Your task to perform on an android device: What is the news today? Image 0: 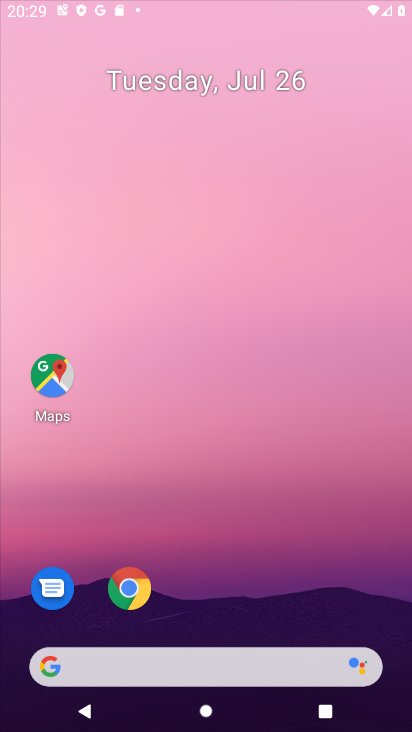
Step 0: press home button
Your task to perform on an android device: What is the news today? Image 1: 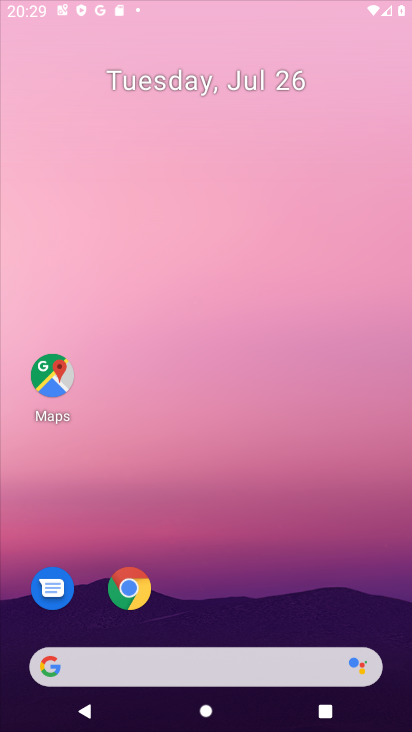
Step 1: click (140, 587)
Your task to perform on an android device: What is the news today? Image 2: 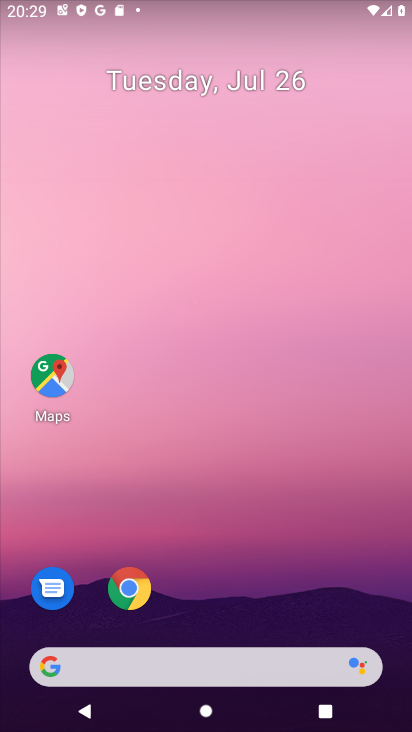
Step 2: press home button
Your task to perform on an android device: What is the news today? Image 3: 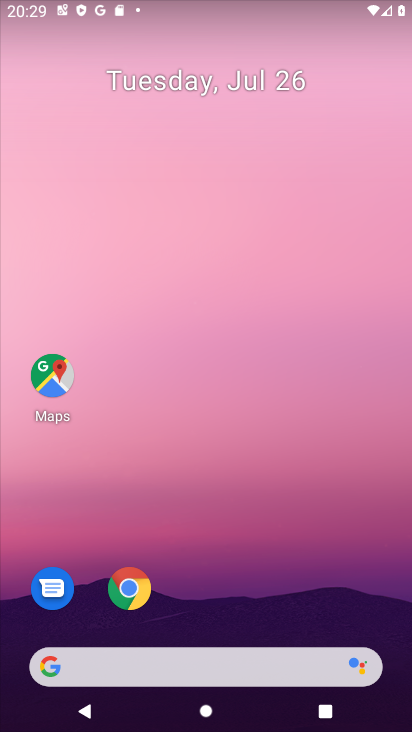
Step 3: press home button
Your task to perform on an android device: What is the news today? Image 4: 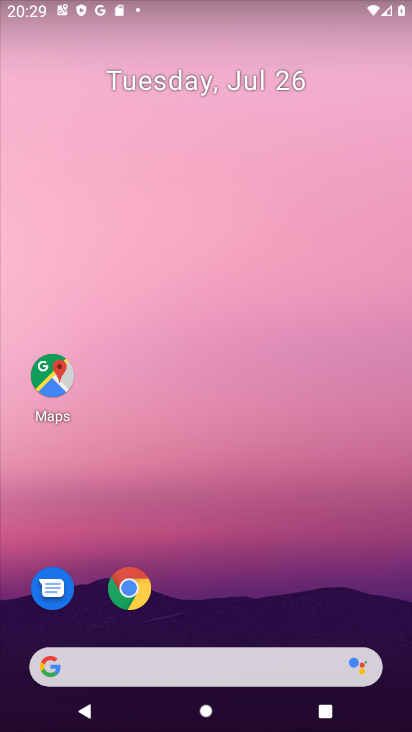
Step 4: press home button
Your task to perform on an android device: What is the news today? Image 5: 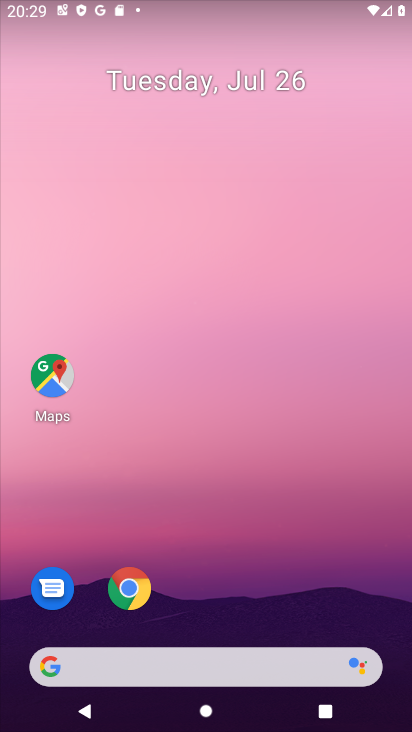
Step 5: press home button
Your task to perform on an android device: What is the news today? Image 6: 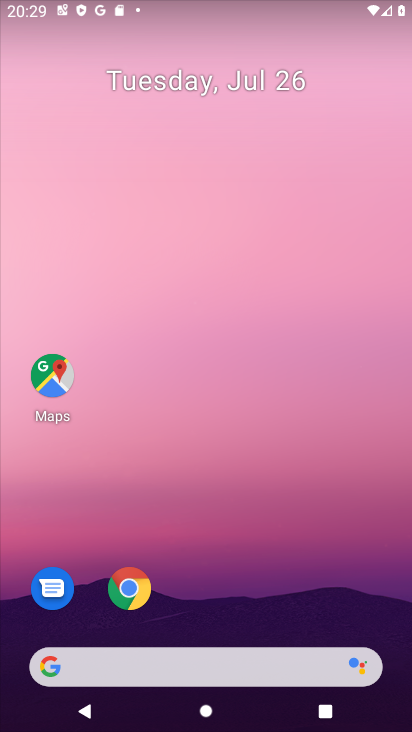
Step 6: press home button
Your task to perform on an android device: What is the news today? Image 7: 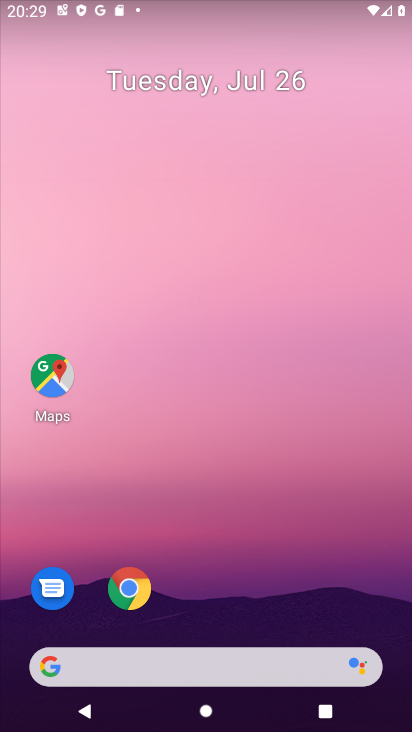
Step 7: click (49, 666)
Your task to perform on an android device: What is the news today? Image 8: 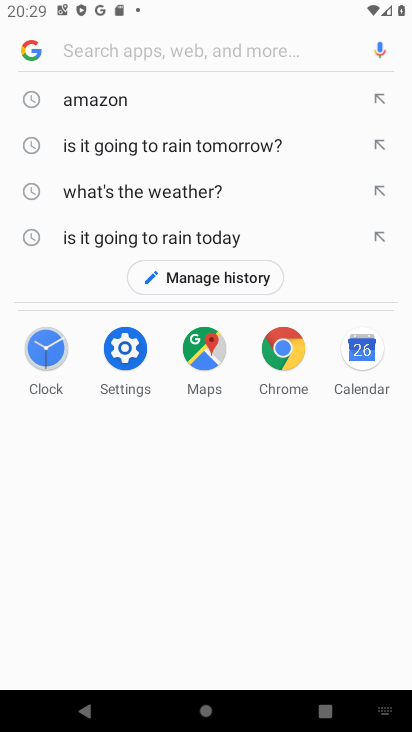
Step 8: type "What is the news today?"
Your task to perform on an android device: What is the news today? Image 9: 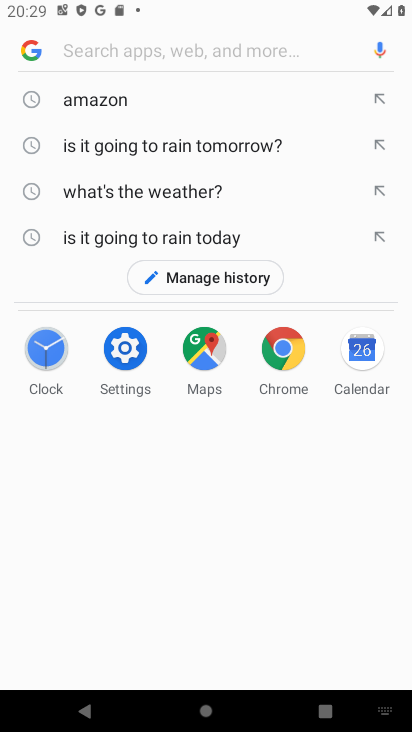
Step 9: click (119, 53)
Your task to perform on an android device: What is the news today? Image 10: 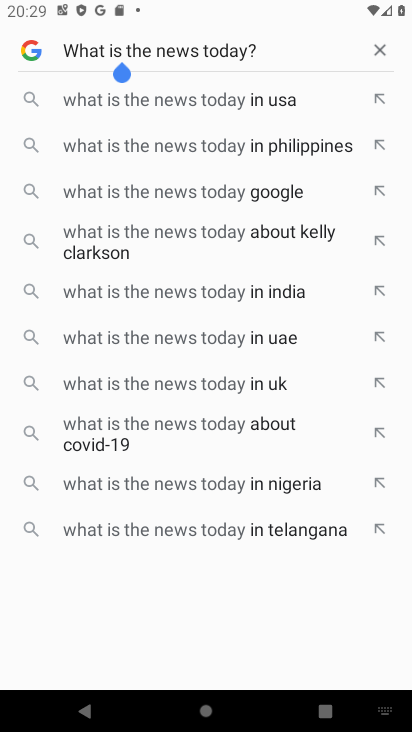
Step 10: press enter
Your task to perform on an android device: What is the news today? Image 11: 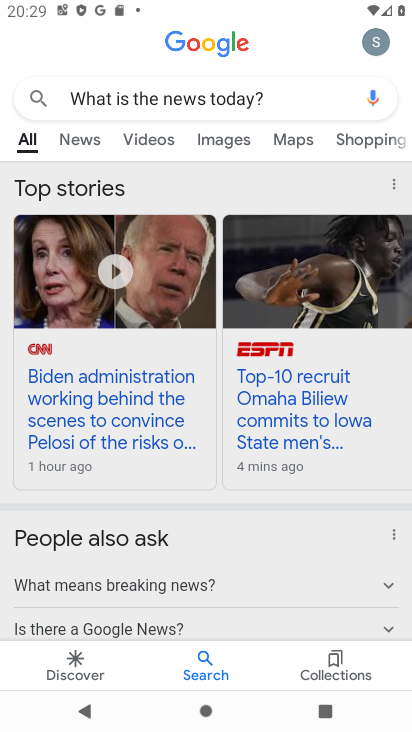
Step 11: task complete